Your task to perform on an android device: Go to Wikipedia Image 0: 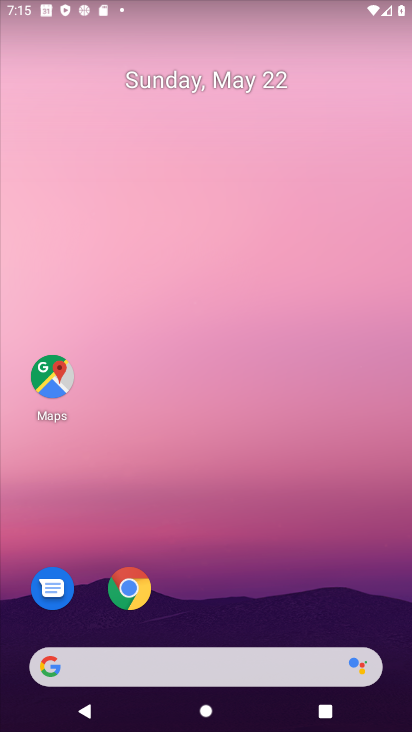
Step 0: click (132, 588)
Your task to perform on an android device: Go to Wikipedia Image 1: 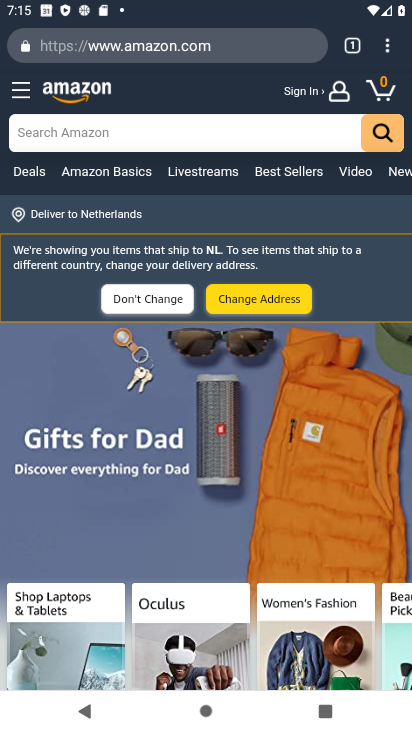
Step 1: click (392, 50)
Your task to perform on an android device: Go to Wikipedia Image 2: 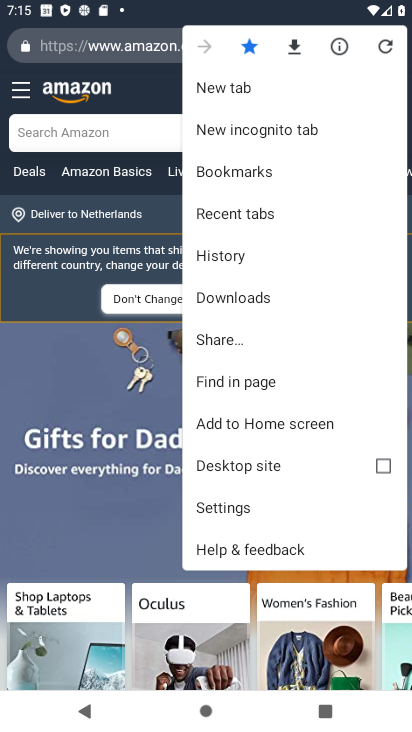
Step 2: click (237, 82)
Your task to perform on an android device: Go to Wikipedia Image 3: 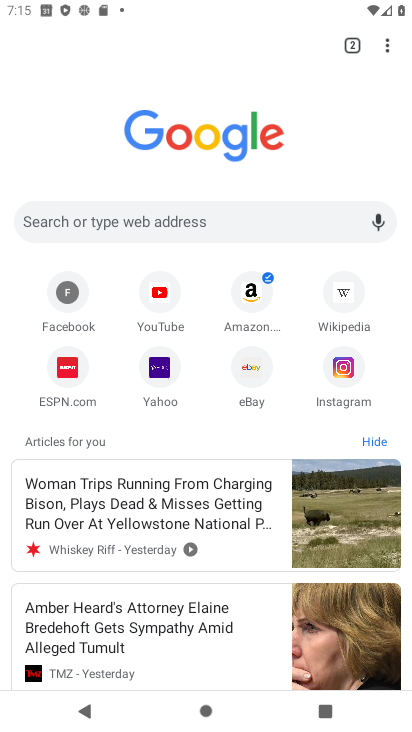
Step 3: click (341, 287)
Your task to perform on an android device: Go to Wikipedia Image 4: 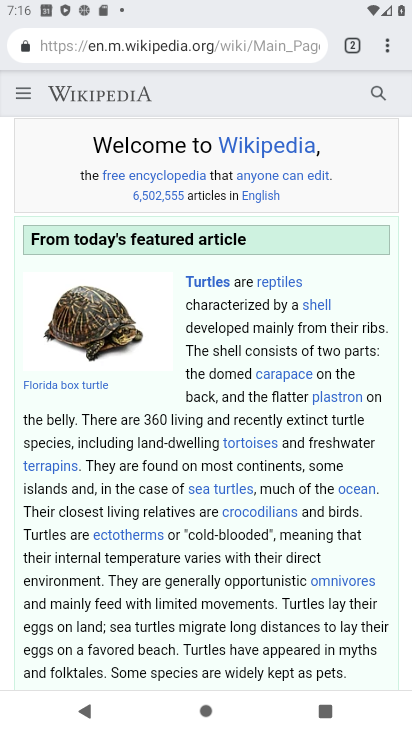
Step 4: task complete